Your task to perform on an android device: check the backup settings in the google photos Image 0: 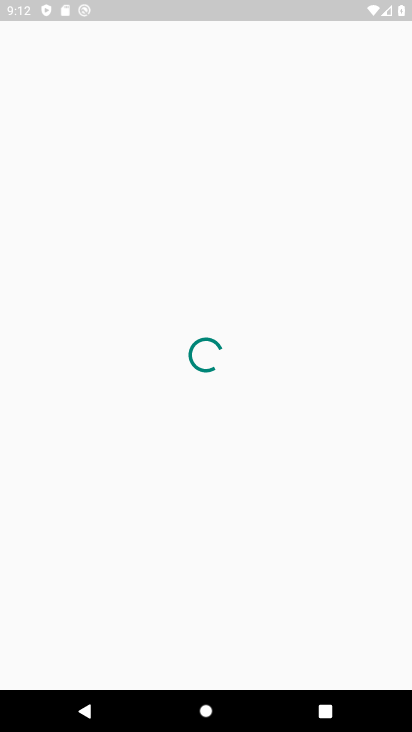
Step 0: press home button
Your task to perform on an android device: check the backup settings in the google photos Image 1: 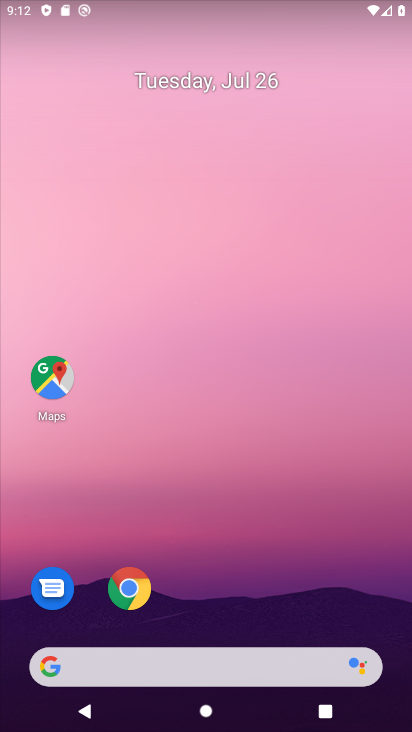
Step 1: drag from (202, 646) to (232, 169)
Your task to perform on an android device: check the backup settings in the google photos Image 2: 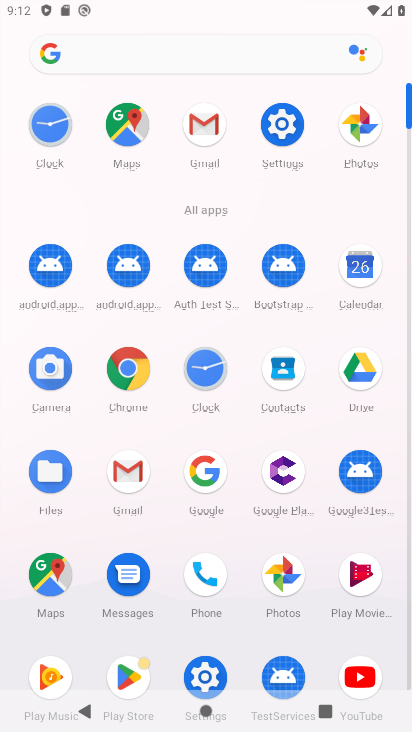
Step 2: click (282, 571)
Your task to perform on an android device: check the backup settings in the google photos Image 3: 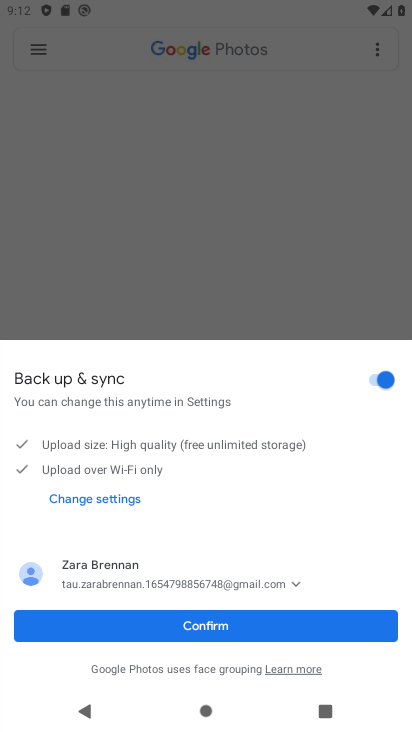
Step 3: click (162, 625)
Your task to perform on an android device: check the backup settings in the google photos Image 4: 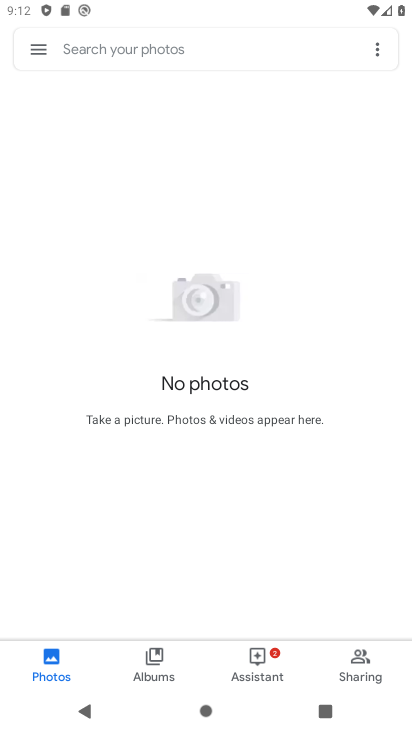
Step 4: click (31, 39)
Your task to perform on an android device: check the backup settings in the google photos Image 5: 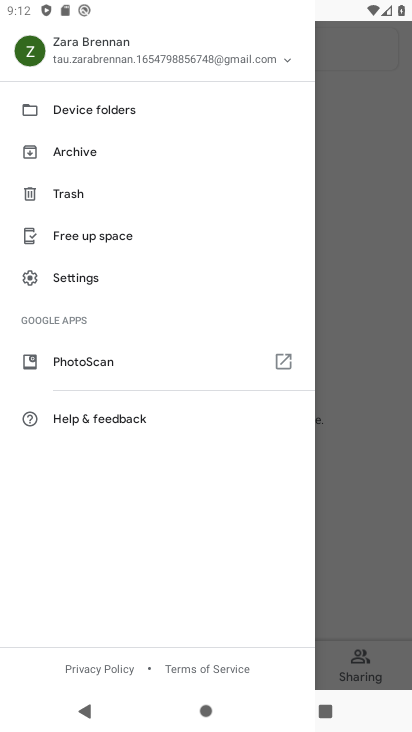
Step 5: click (92, 280)
Your task to perform on an android device: check the backup settings in the google photos Image 6: 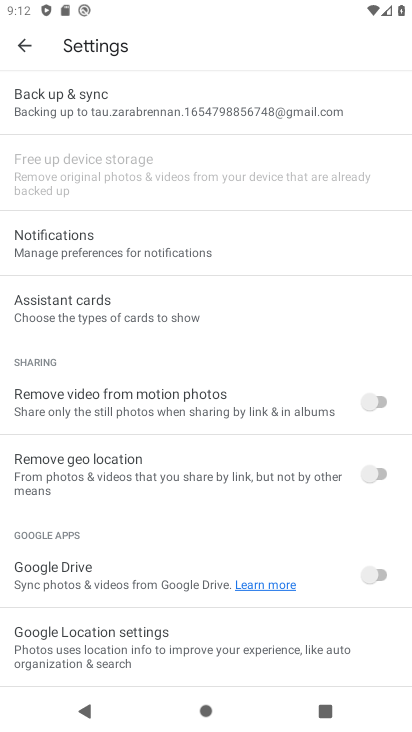
Step 6: click (66, 98)
Your task to perform on an android device: check the backup settings in the google photos Image 7: 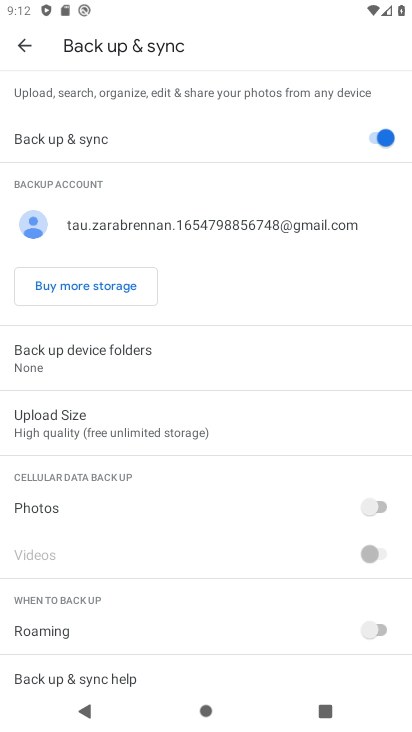
Step 7: task complete